Your task to perform on an android device: turn smart compose on in the gmail app Image 0: 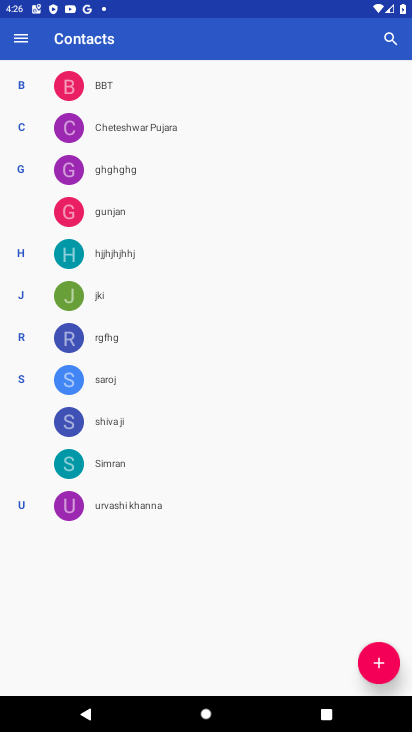
Step 0: press home button
Your task to perform on an android device: turn smart compose on in the gmail app Image 1: 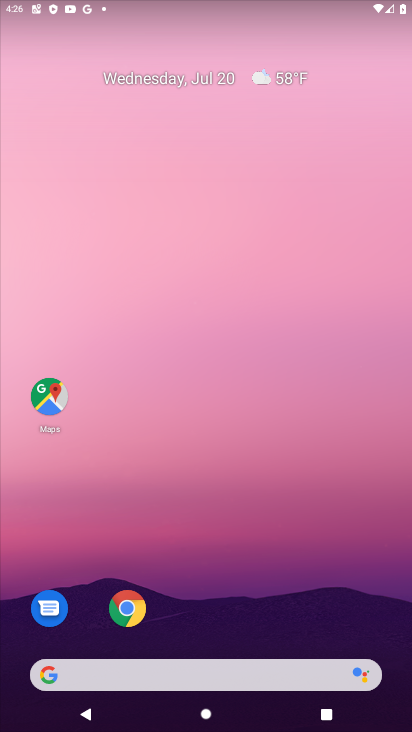
Step 1: drag from (203, 643) to (143, 0)
Your task to perform on an android device: turn smart compose on in the gmail app Image 2: 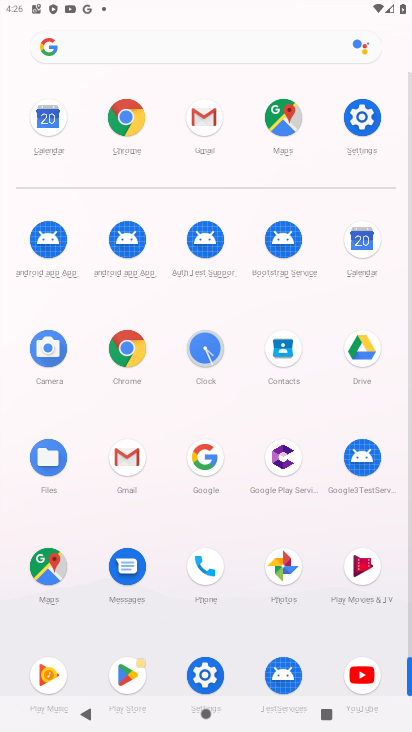
Step 2: click (129, 468)
Your task to perform on an android device: turn smart compose on in the gmail app Image 3: 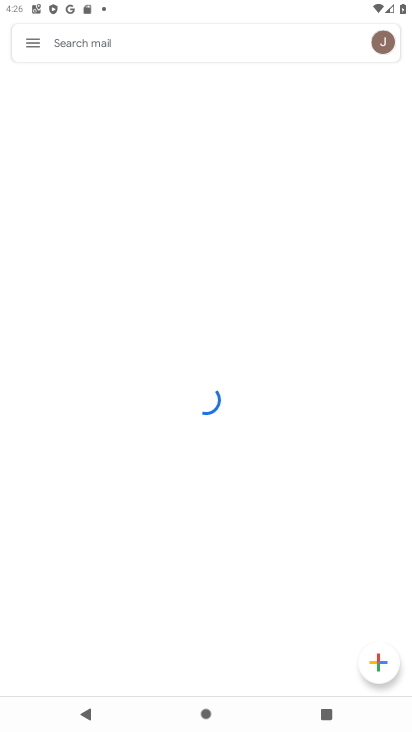
Step 3: click (36, 41)
Your task to perform on an android device: turn smart compose on in the gmail app Image 4: 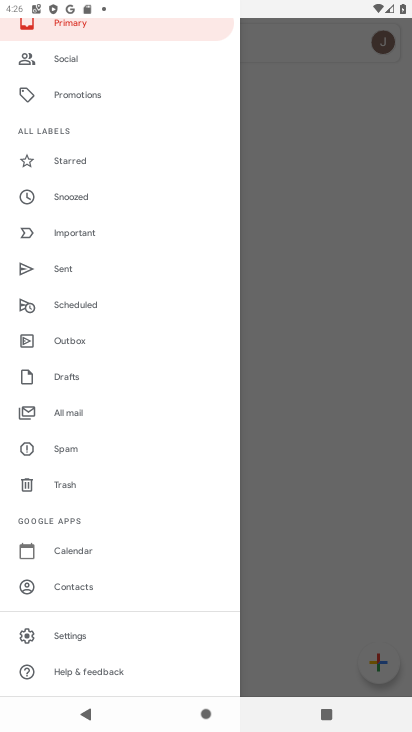
Step 4: click (66, 638)
Your task to perform on an android device: turn smart compose on in the gmail app Image 5: 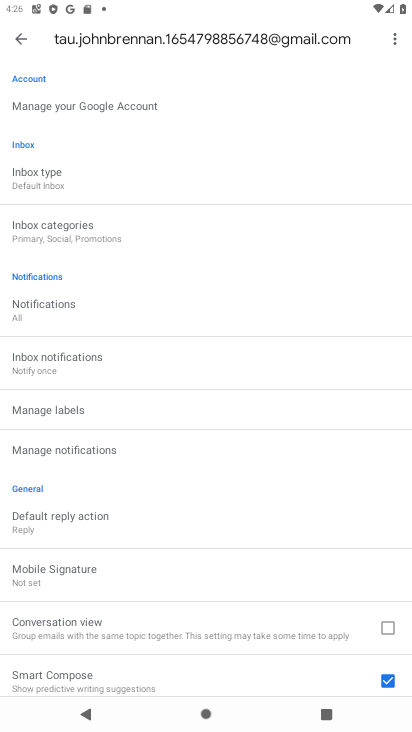
Step 5: task complete